Your task to perform on an android device: Open calendar and show me the fourth week of next month Image 0: 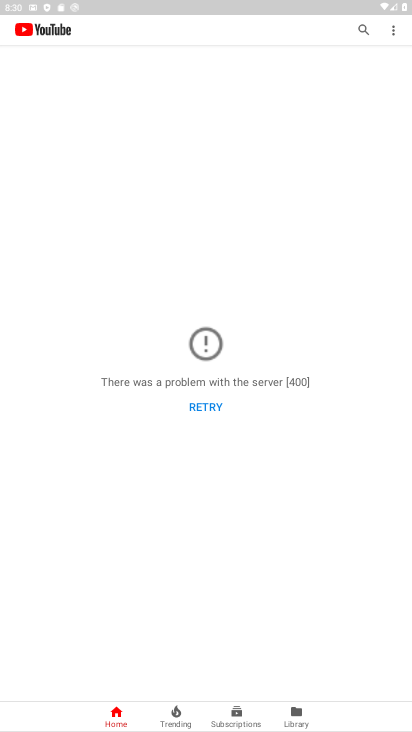
Step 0: press home button
Your task to perform on an android device: Open calendar and show me the fourth week of next month Image 1: 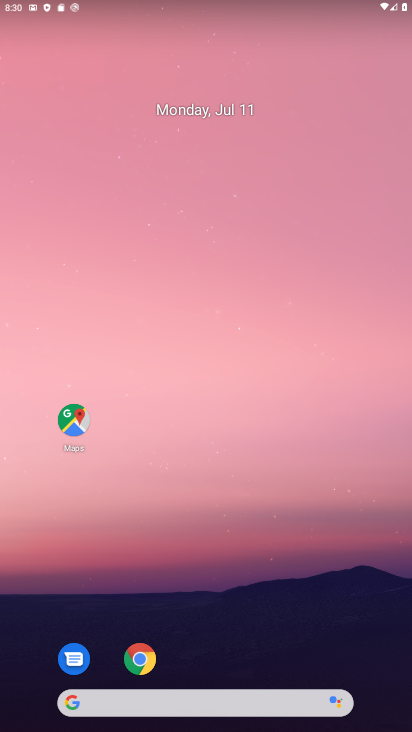
Step 1: drag from (227, 519) to (227, 94)
Your task to perform on an android device: Open calendar and show me the fourth week of next month Image 2: 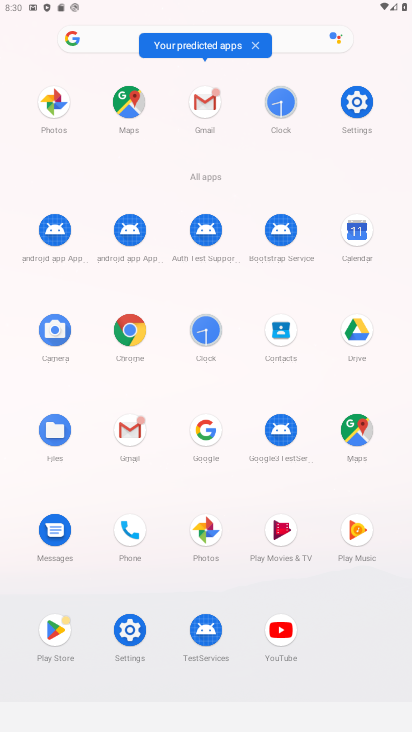
Step 2: click (354, 229)
Your task to perform on an android device: Open calendar and show me the fourth week of next month Image 3: 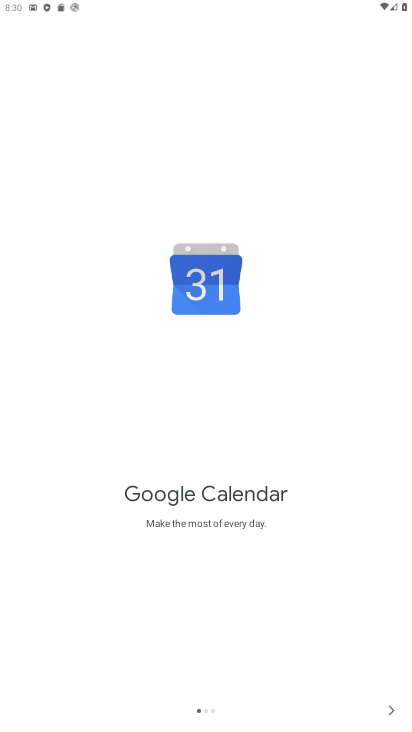
Step 3: click (394, 711)
Your task to perform on an android device: Open calendar and show me the fourth week of next month Image 4: 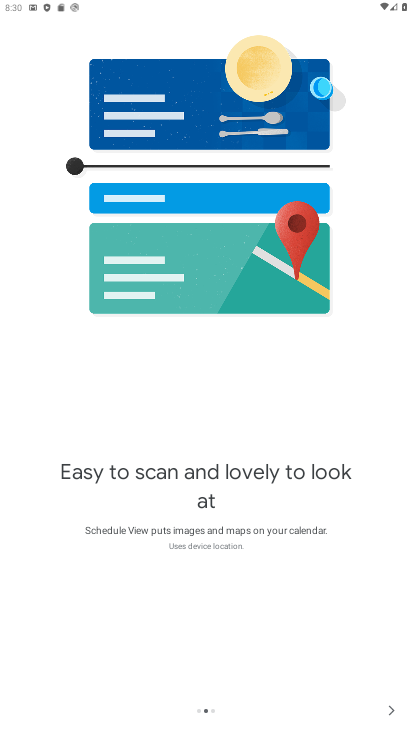
Step 4: click (389, 706)
Your task to perform on an android device: Open calendar and show me the fourth week of next month Image 5: 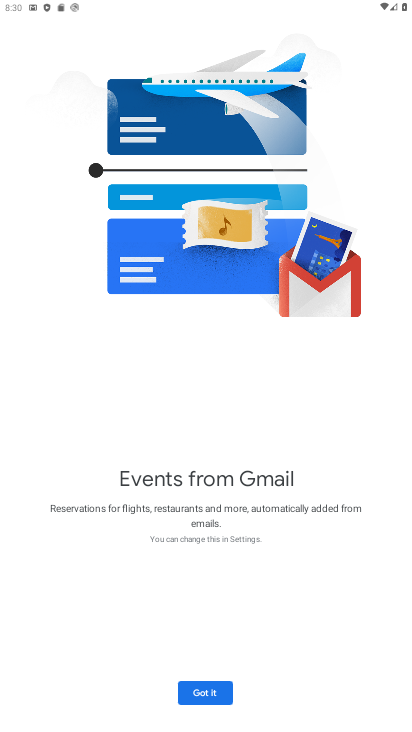
Step 5: click (395, 712)
Your task to perform on an android device: Open calendar and show me the fourth week of next month Image 6: 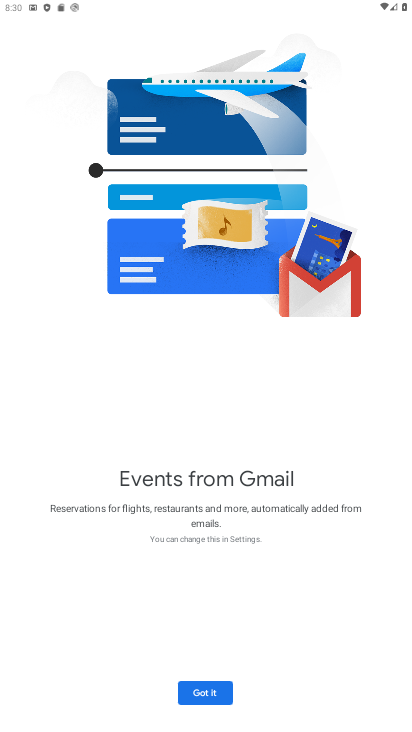
Step 6: click (188, 692)
Your task to perform on an android device: Open calendar and show me the fourth week of next month Image 7: 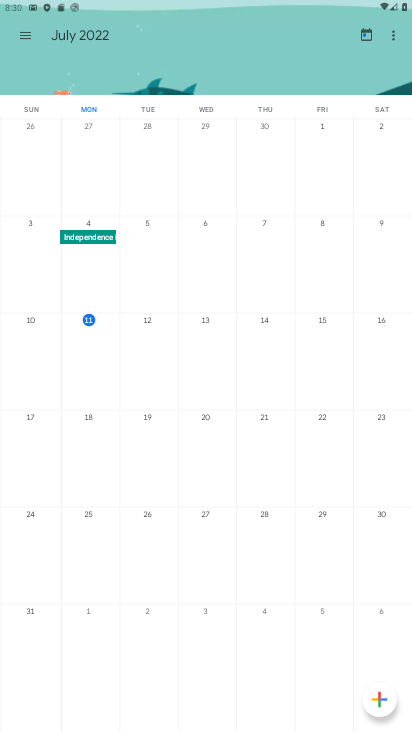
Step 7: drag from (349, 233) to (88, 215)
Your task to perform on an android device: Open calendar and show me the fourth week of next month Image 8: 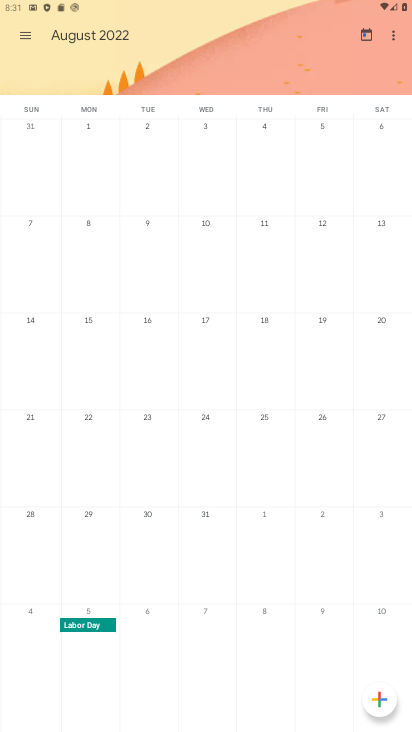
Step 8: click (90, 416)
Your task to perform on an android device: Open calendar and show me the fourth week of next month Image 9: 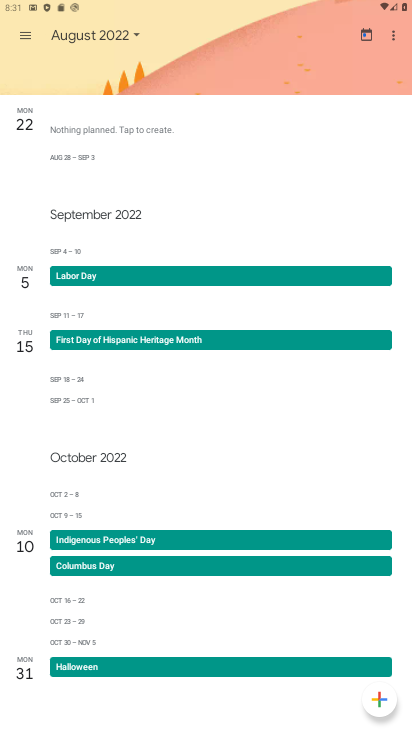
Step 9: click (27, 26)
Your task to perform on an android device: Open calendar and show me the fourth week of next month Image 10: 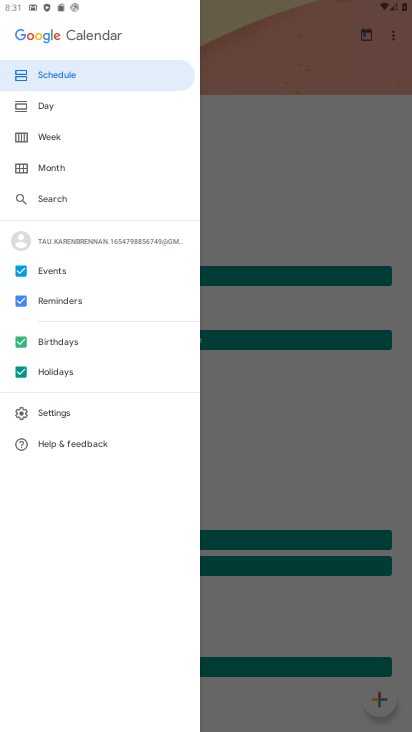
Step 10: click (47, 134)
Your task to perform on an android device: Open calendar and show me the fourth week of next month Image 11: 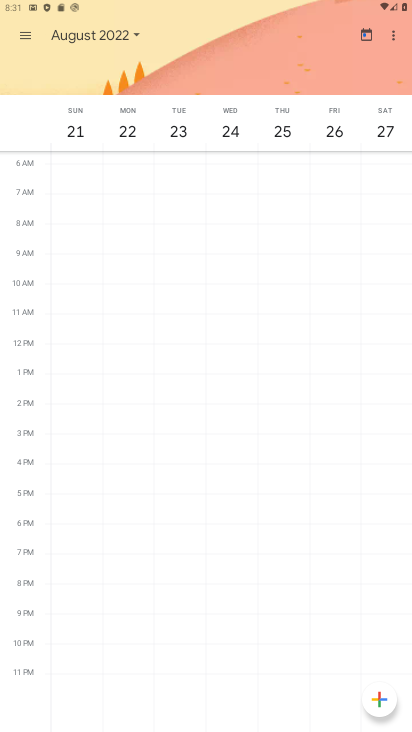
Step 11: task complete